Your task to perform on an android device: View the shopping cart on amazon.com. Search for "apple airpods" on amazon.com, select the first entry, and add it to the cart. Image 0: 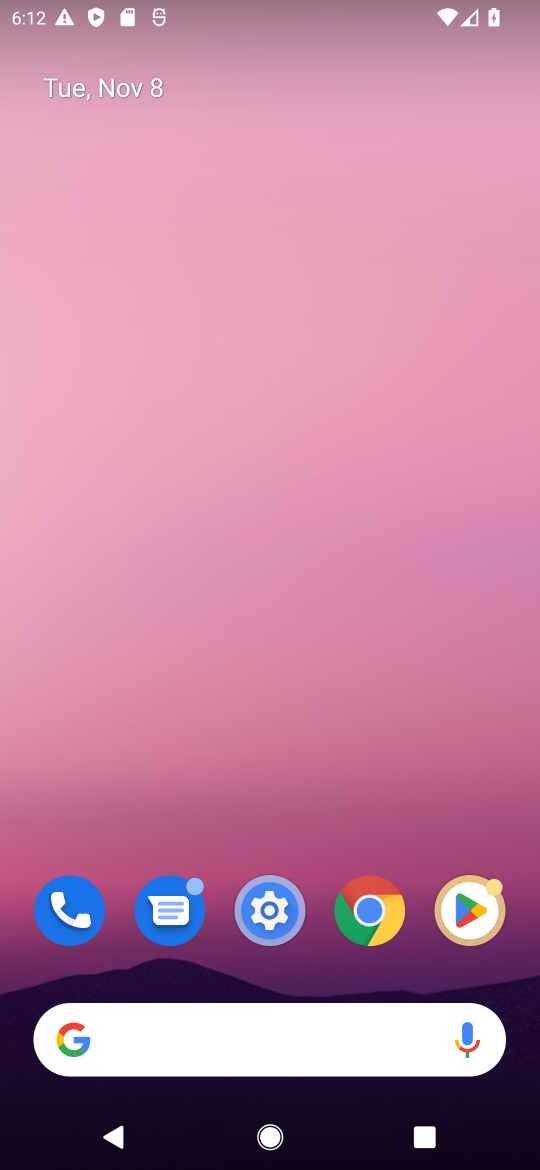
Step 0: click (359, 910)
Your task to perform on an android device: View the shopping cart on amazon.com. Search for "apple airpods" on amazon.com, select the first entry, and add it to the cart. Image 1: 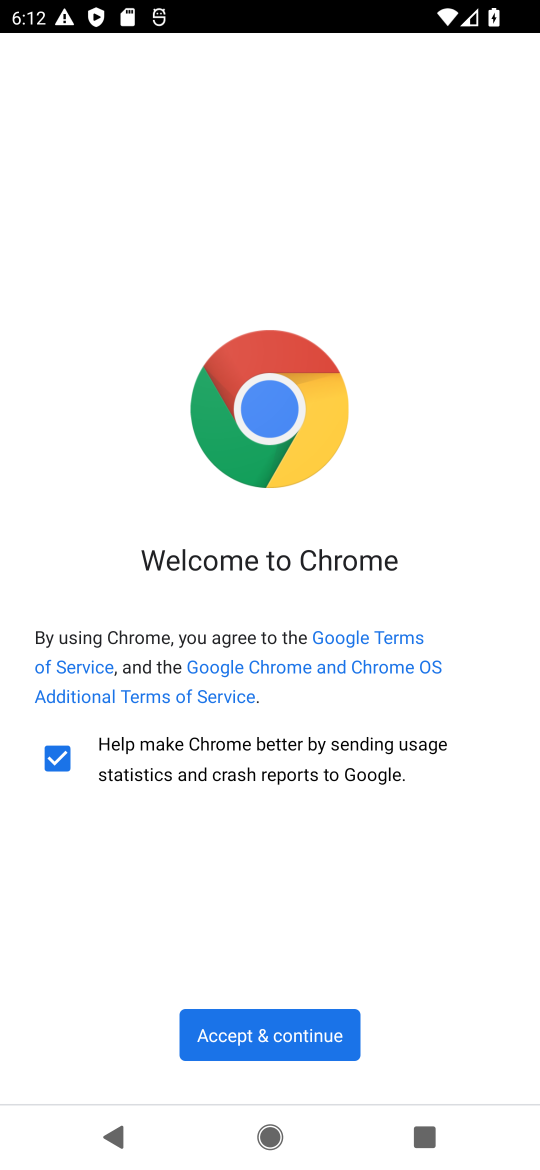
Step 1: click (295, 1034)
Your task to perform on an android device: View the shopping cart on amazon.com. Search for "apple airpods" on amazon.com, select the first entry, and add it to the cart. Image 2: 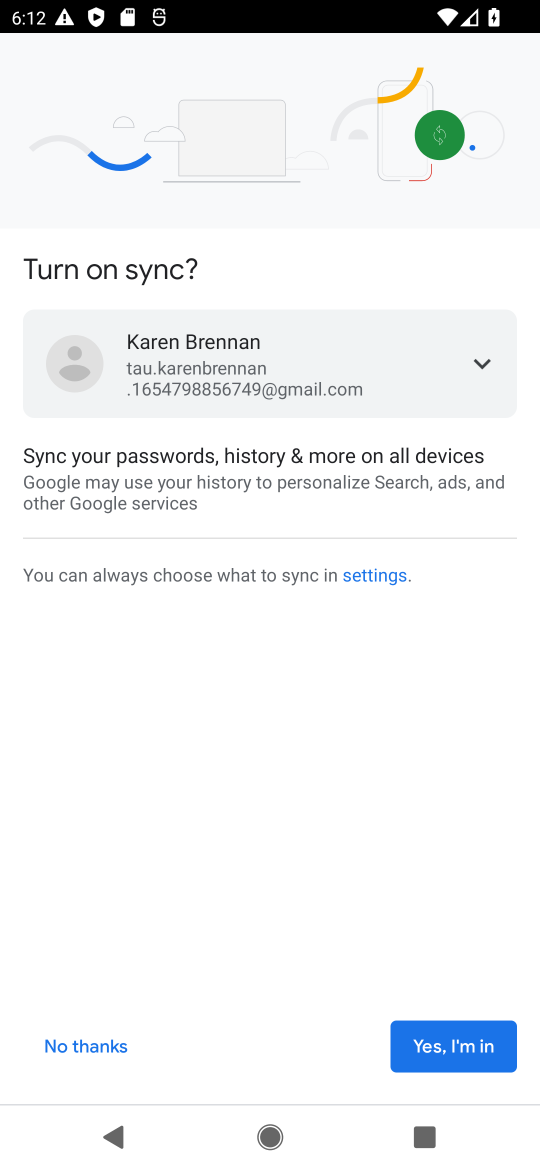
Step 2: click (446, 1051)
Your task to perform on an android device: View the shopping cart on amazon.com. Search for "apple airpods" on amazon.com, select the first entry, and add it to the cart. Image 3: 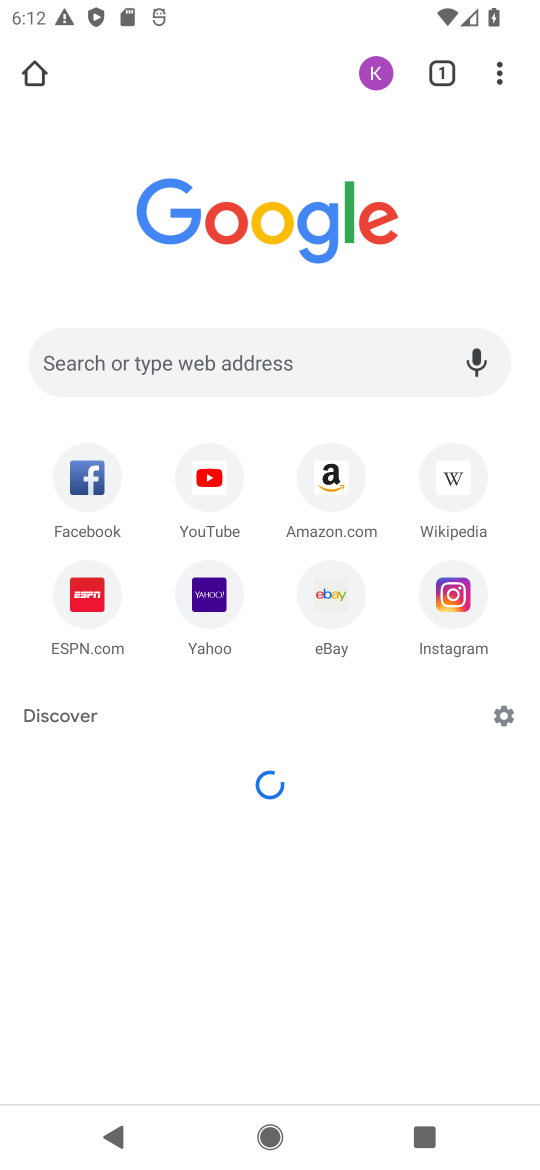
Step 3: click (274, 364)
Your task to perform on an android device: View the shopping cart on amazon.com. Search for "apple airpods" on amazon.com, select the first entry, and add it to the cart. Image 4: 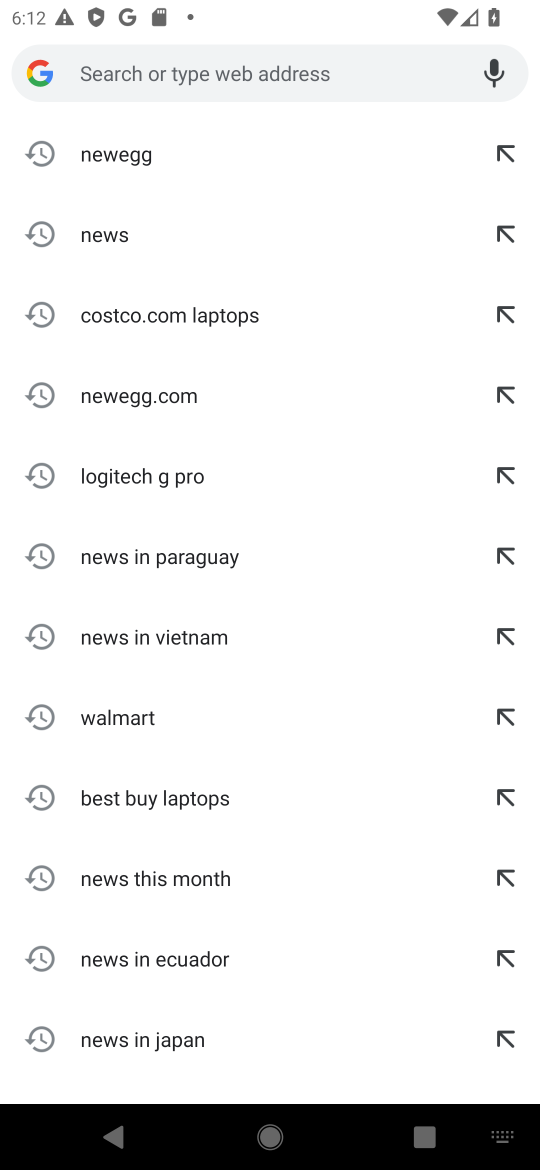
Step 4: type "amazon"
Your task to perform on an android device: View the shopping cart on amazon.com. Search for "apple airpods" on amazon.com, select the first entry, and add it to the cart. Image 5: 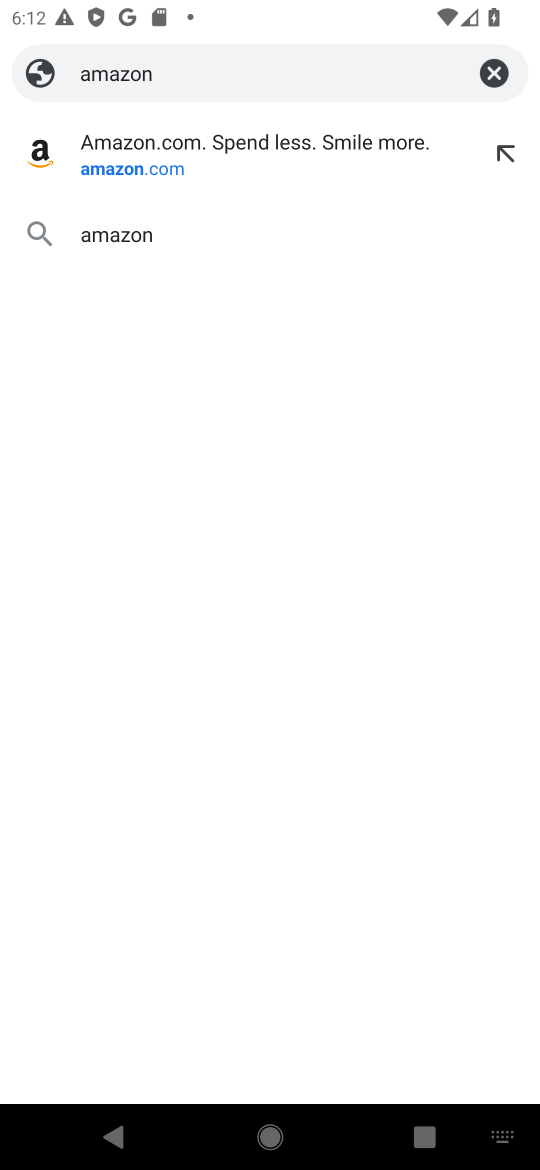
Step 5: click (176, 157)
Your task to perform on an android device: View the shopping cart on amazon.com. Search for "apple airpods" on amazon.com, select the first entry, and add it to the cart. Image 6: 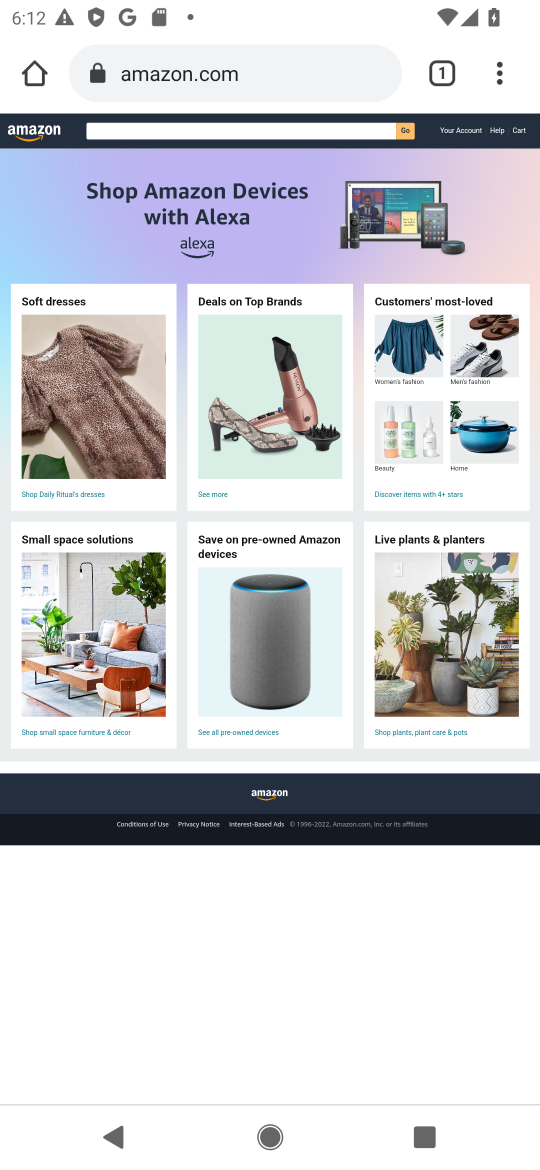
Step 6: click (439, 79)
Your task to perform on an android device: View the shopping cart on amazon.com. Search for "apple airpods" on amazon.com, select the first entry, and add it to the cart. Image 7: 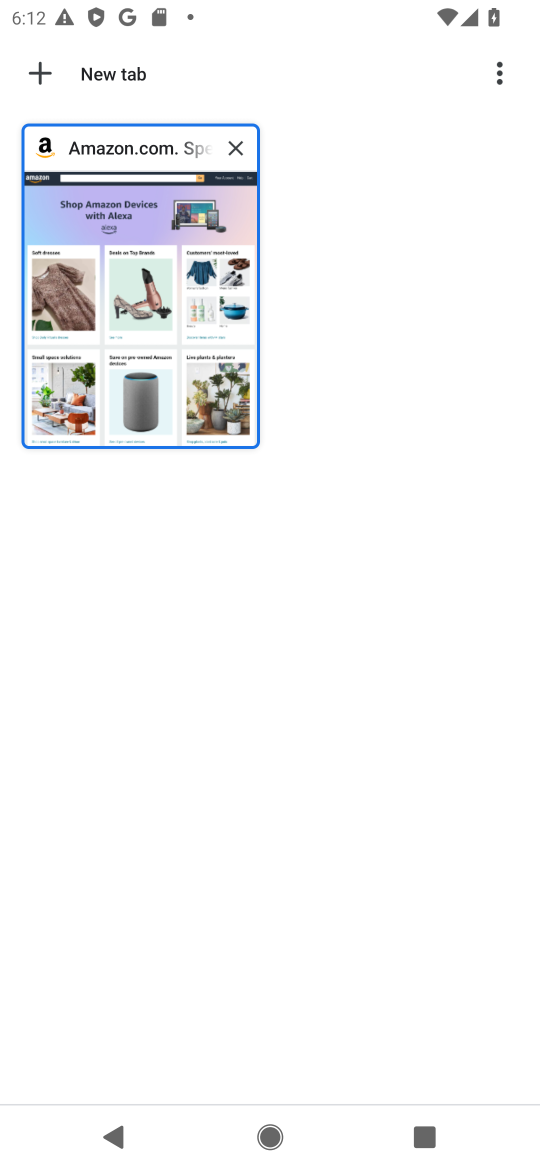
Step 7: click (243, 144)
Your task to perform on an android device: View the shopping cart on amazon.com. Search for "apple airpods" on amazon.com, select the first entry, and add it to the cart. Image 8: 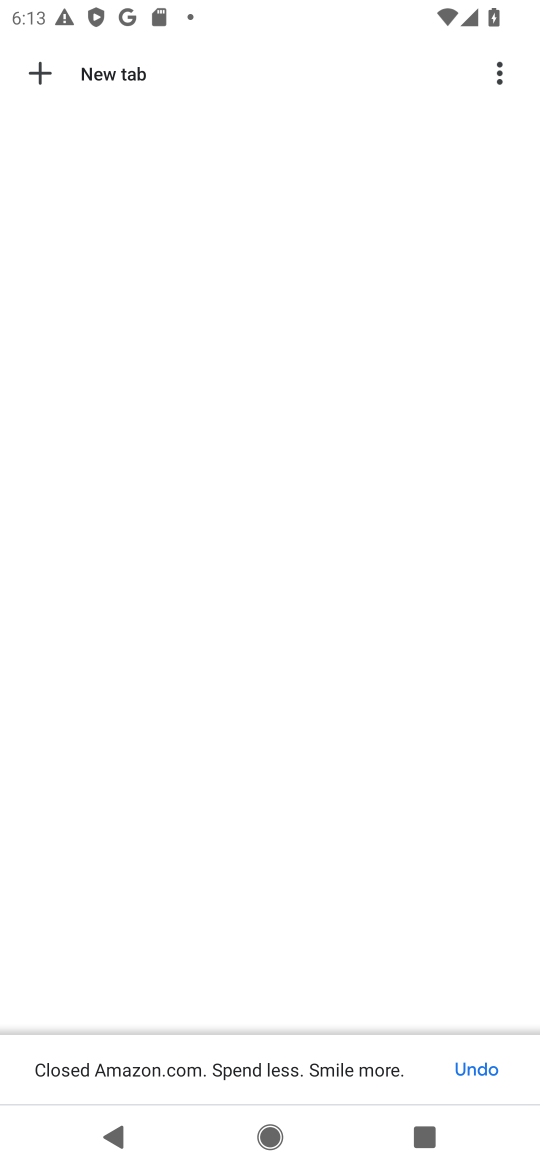
Step 8: click (40, 88)
Your task to perform on an android device: View the shopping cart on amazon.com. Search for "apple airpods" on amazon.com, select the first entry, and add it to the cart. Image 9: 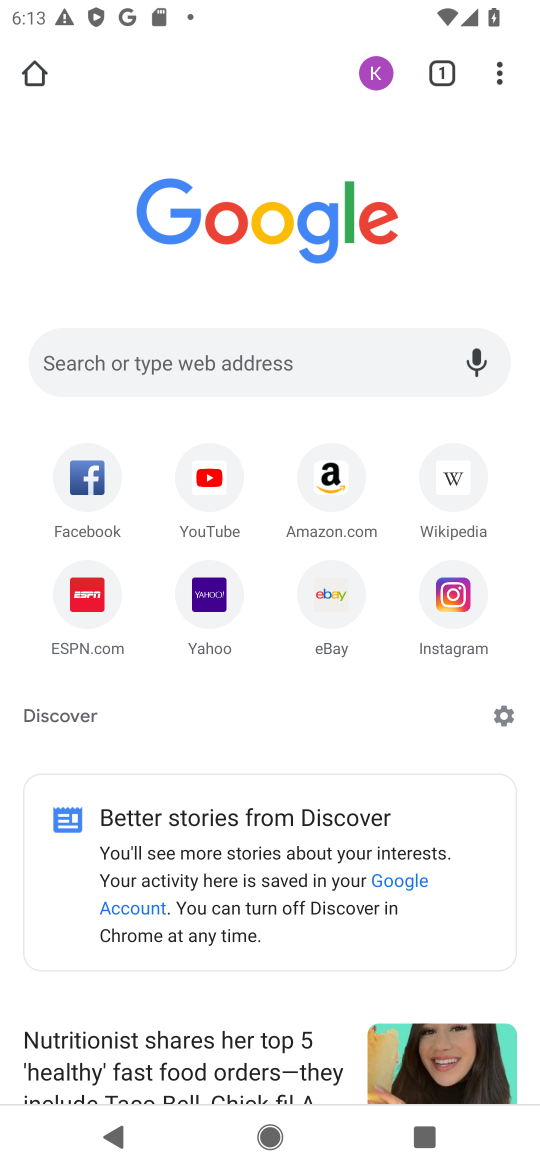
Step 9: click (233, 360)
Your task to perform on an android device: View the shopping cart on amazon.com. Search for "apple airpods" on amazon.com, select the first entry, and add it to the cart. Image 10: 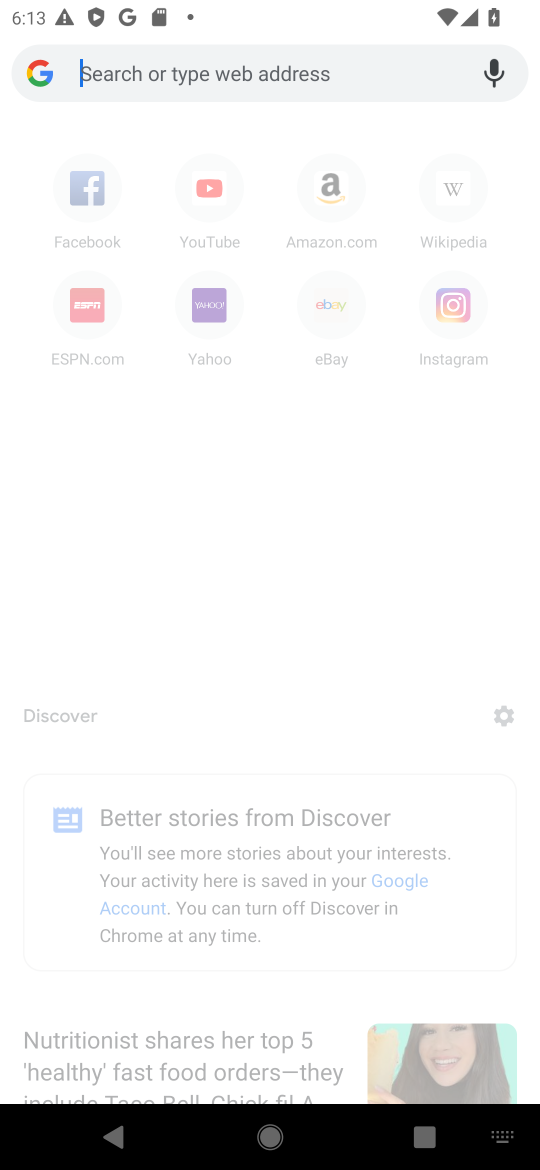
Step 10: click (328, 472)
Your task to perform on an android device: View the shopping cart on amazon.com. Search for "apple airpods" on amazon.com, select the first entry, and add it to the cart. Image 11: 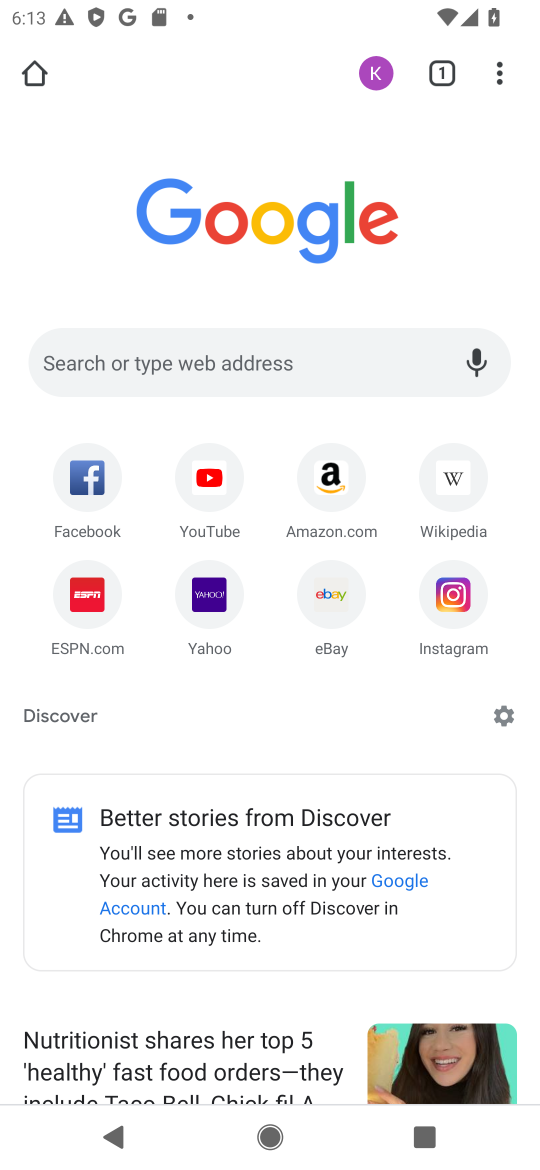
Step 11: click (327, 467)
Your task to perform on an android device: View the shopping cart on amazon.com. Search for "apple airpods" on amazon.com, select the first entry, and add it to the cart. Image 12: 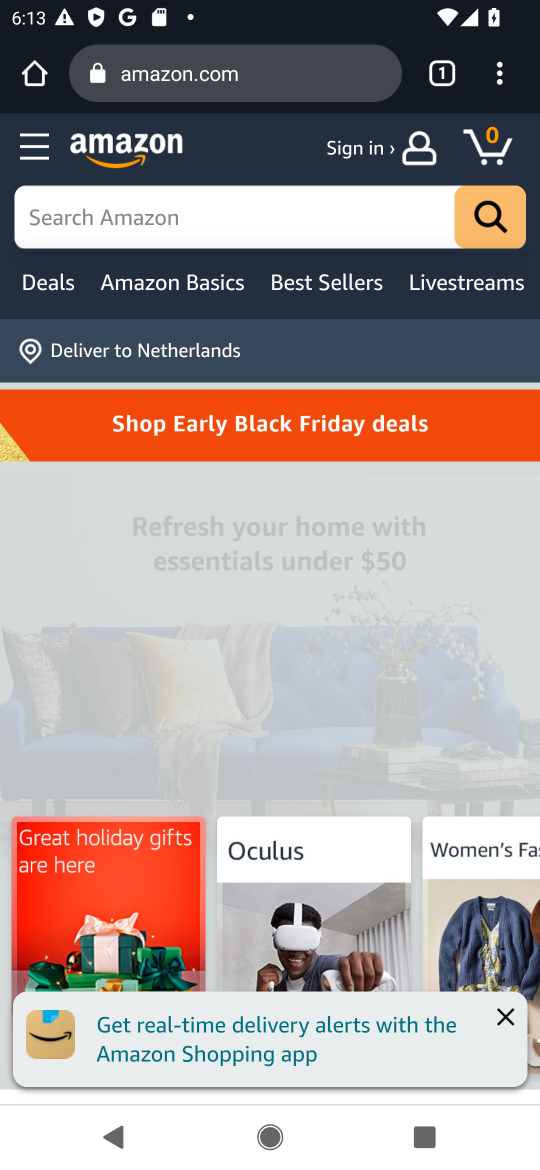
Step 12: click (155, 219)
Your task to perform on an android device: View the shopping cart on amazon.com. Search for "apple airpods" on amazon.com, select the first entry, and add it to the cart. Image 13: 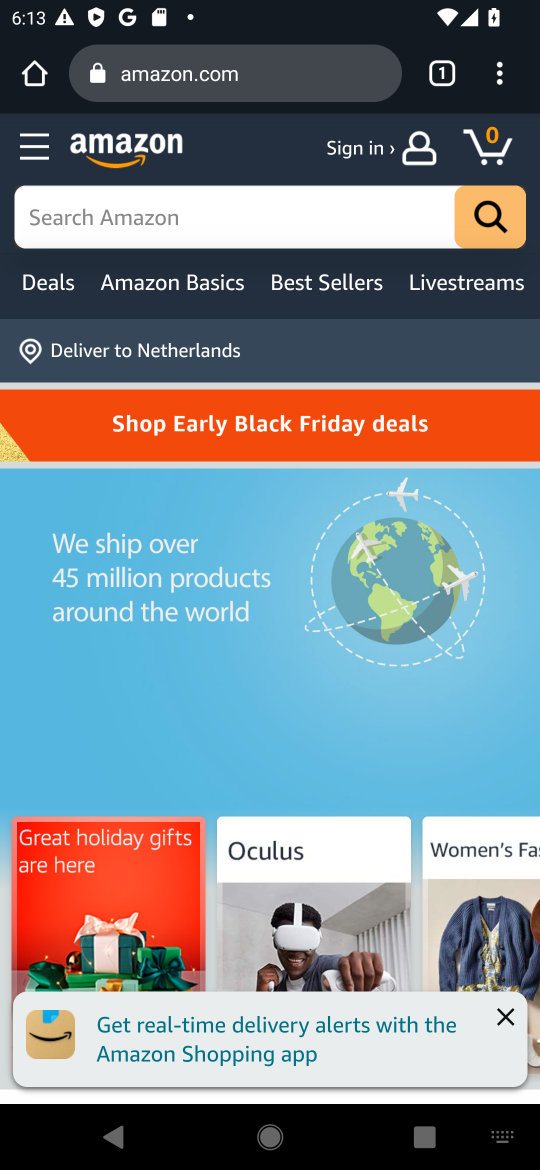
Step 13: type "apple airpods"
Your task to perform on an android device: View the shopping cart on amazon.com. Search for "apple airpods" on amazon.com, select the first entry, and add it to the cart. Image 14: 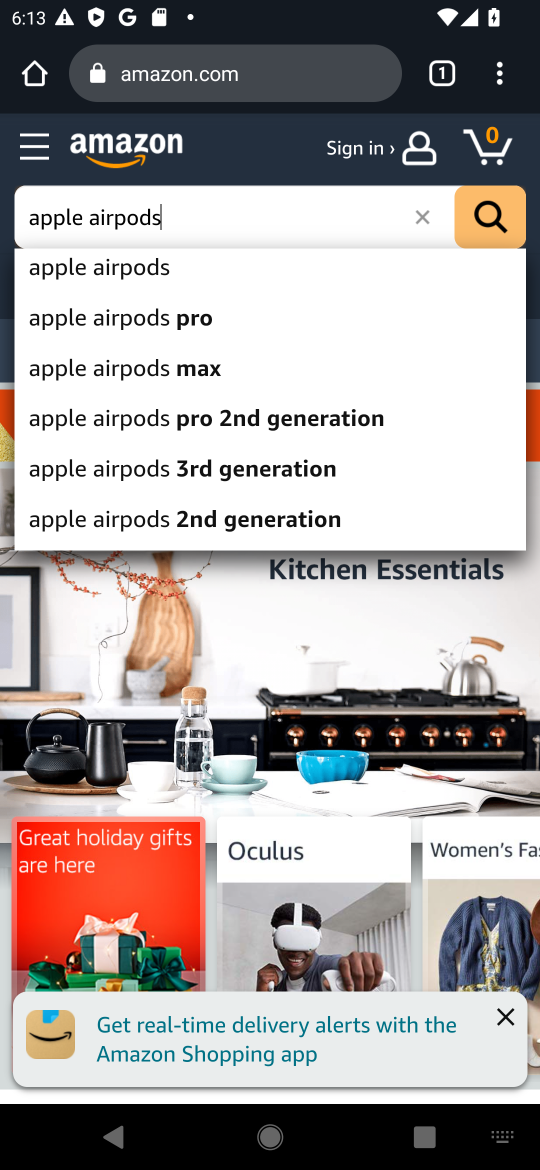
Step 14: click (159, 272)
Your task to perform on an android device: View the shopping cart on amazon.com. Search for "apple airpods" on amazon.com, select the first entry, and add it to the cart. Image 15: 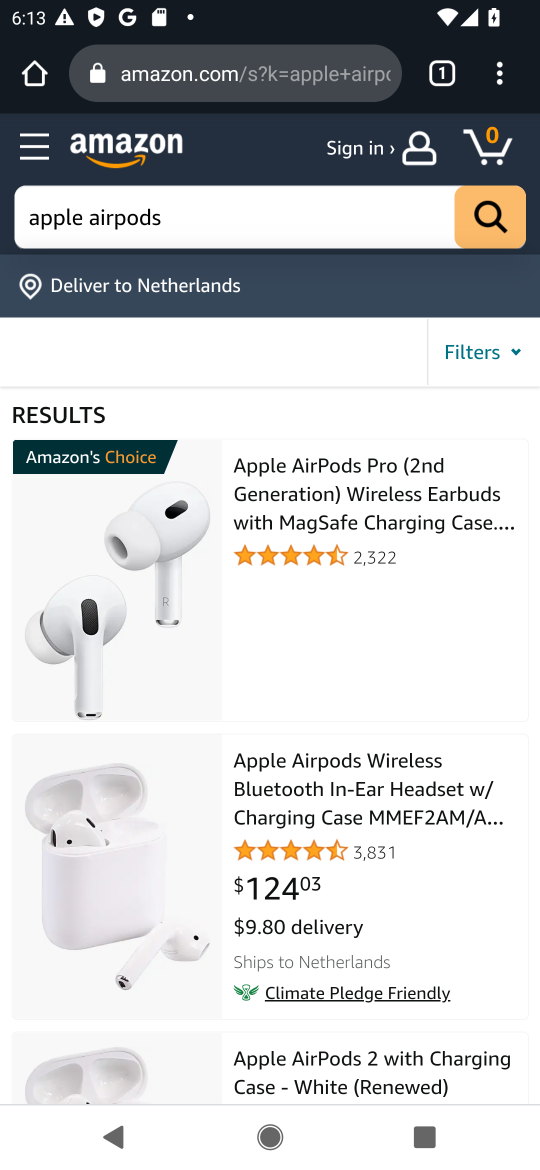
Step 15: click (393, 519)
Your task to perform on an android device: View the shopping cart on amazon.com. Search for "apple airpods" on amazon.com, select the first entry, and add it to the cart. Image 16: 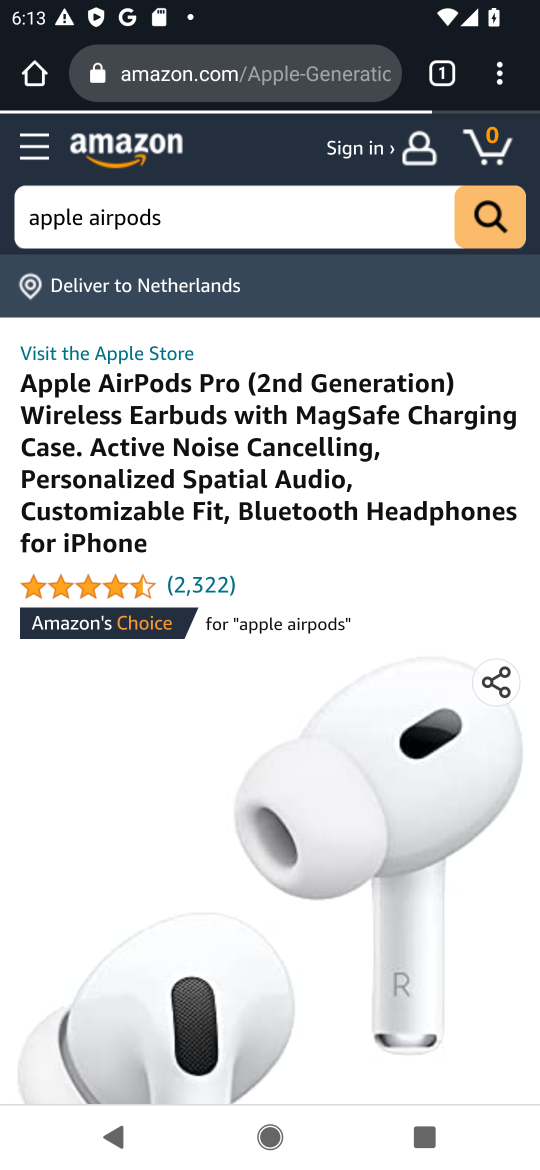
Step 16: drag from (299, 893) to (349, 329)
Your task to perform on an android device: View the shopping cart on amazon.com. Search for "apple airpods" on amazon.com, select the first entry, and add it to the cart. Image 17: 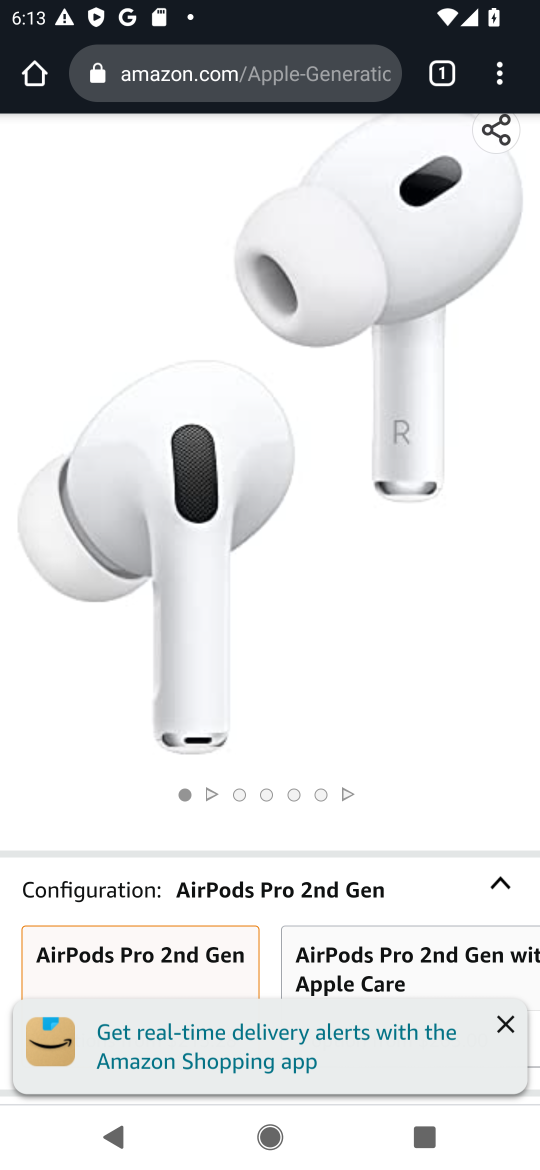
Step 17: drag from (307, 995) to (380, 265)
Your task to perform on an android device: View the shopping cart on amazon.com. Search for "apple airpods" on amazon.com, select the first entry, and add it to the cart. Image 18: 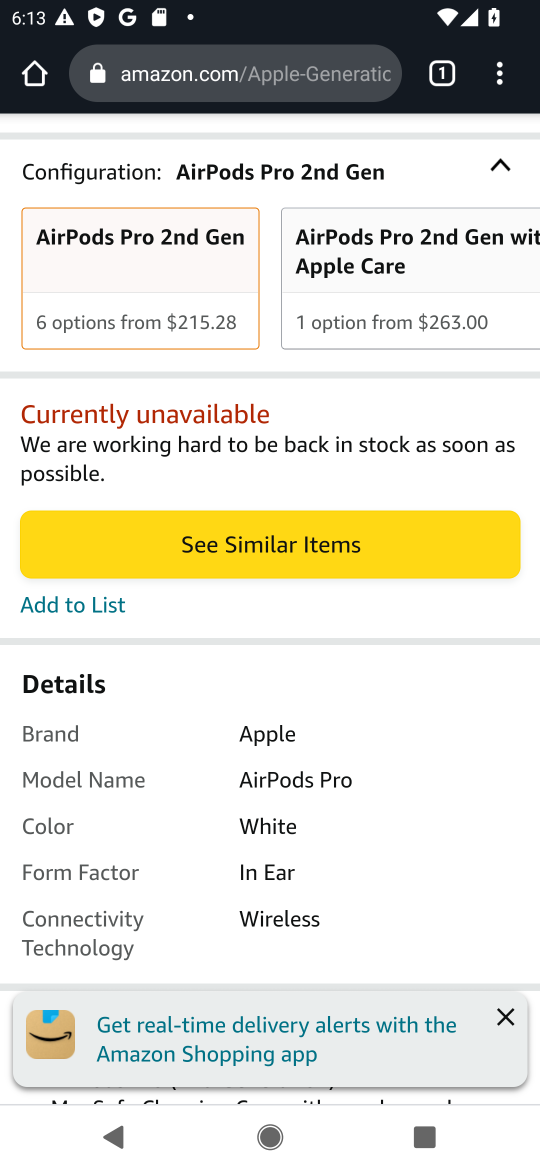
Step 18: click (504, 1007)
Your task to perform on an android device: View the shopping cart on amazon.com. Search for "apple airpods" on amazon.com, select the first entry, and add it to the cart. Image 19: 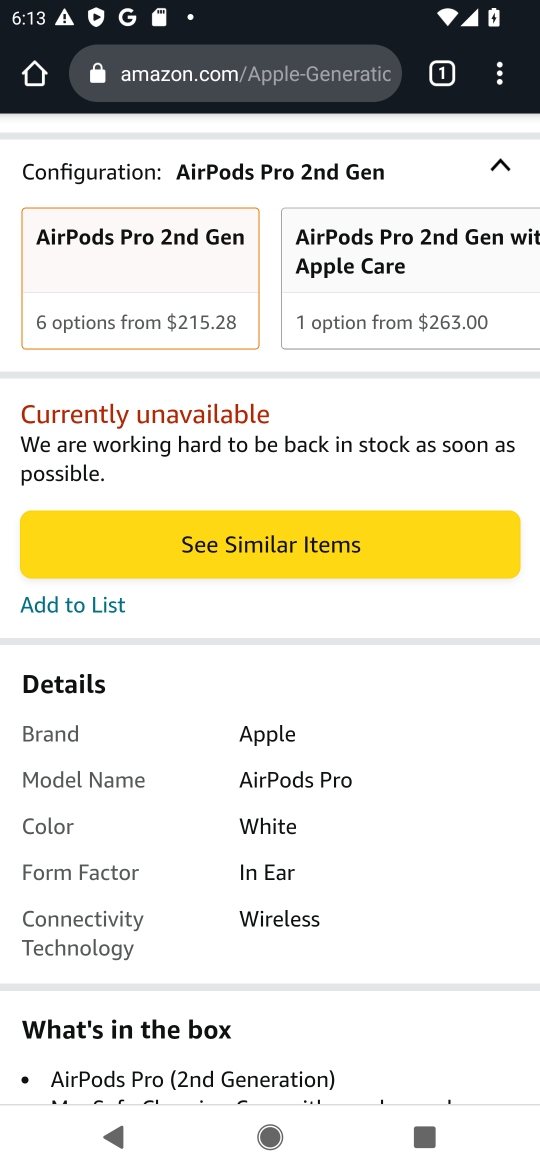
Step 19: click (84, 609)
Your task to perform on an android device: View the shopping cart on amazon.com. Search for "apple airpods" on amazon.com, select the first entry, and add it to the cart. Image 20: 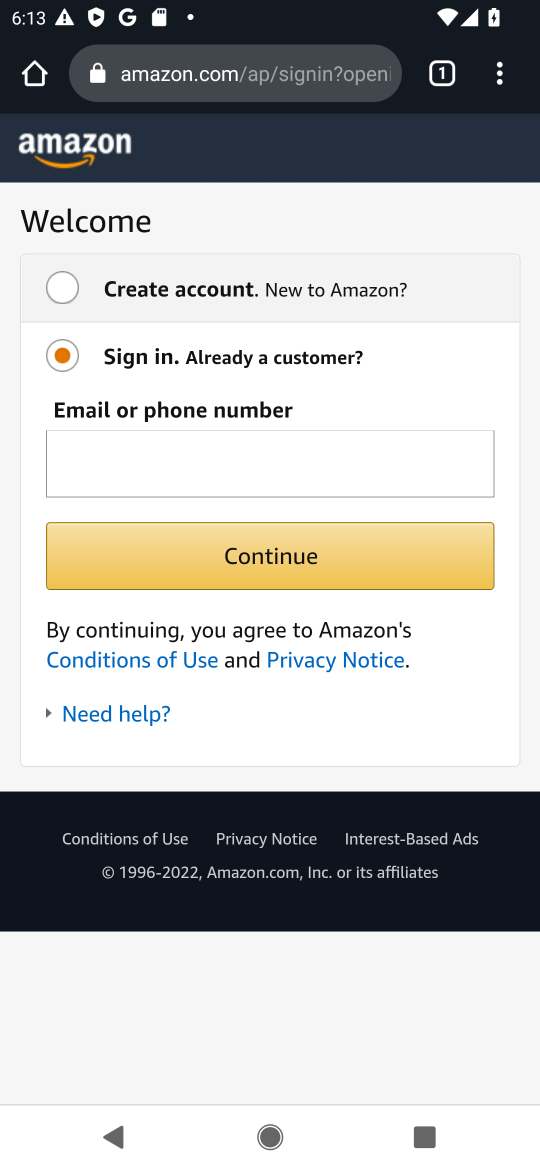
Step 20: task complete